Your task to perform on an android device: Open Google Chrome and open the bookmarks view Image 0: 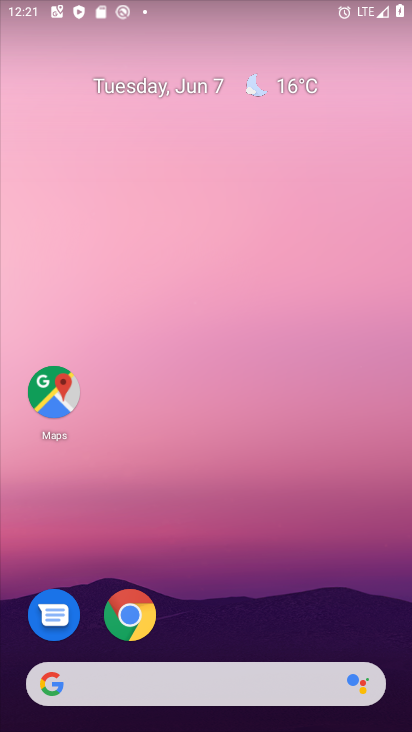
Step 0: click (127, 605)
Your task to perform on an android device: Open Google Chrome and open the bookmarks view Image 1: 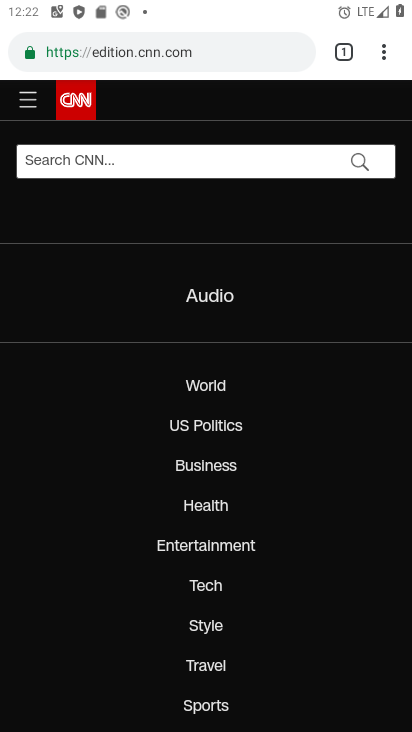
Step 1: click (380, 45)
Your task to perform on an android device: Open Google Chrome and open the bookmarks view Image 2: 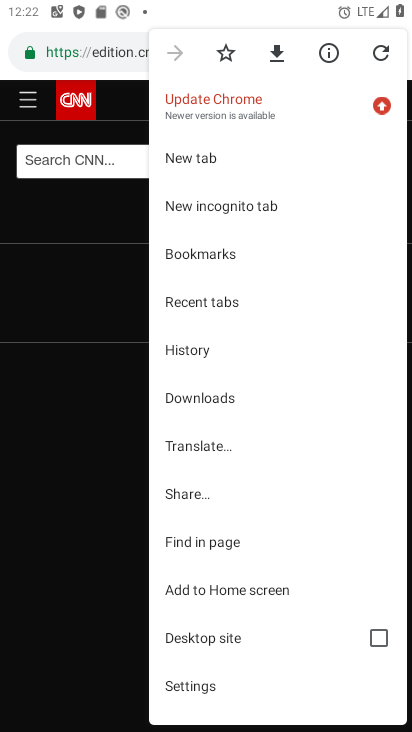
Step 2: click (240, 244)
Your task to perform on an android device: Open Google Chrome and open the bookmarks view Image 3: 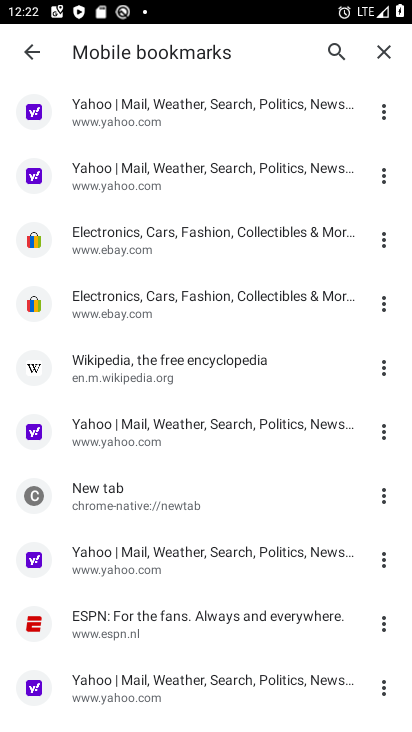
Step 3: click (148, 368)
Your task to perform on an android device: Open Google Chrome and open the bookmarks view Image 4: 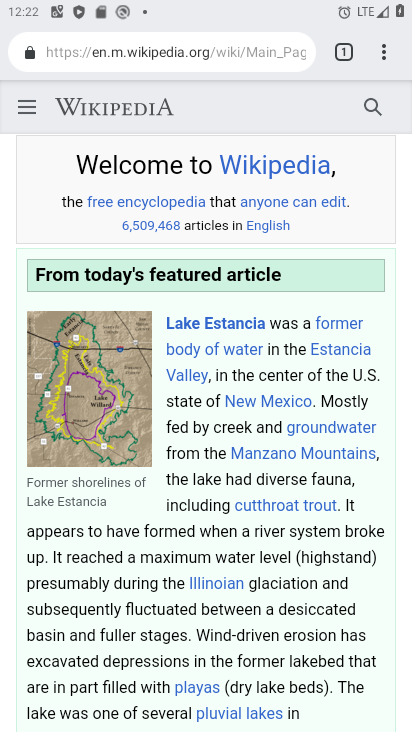
Step 4: task complete